Your task to perform on an android device: Go to battery settings Image 0: 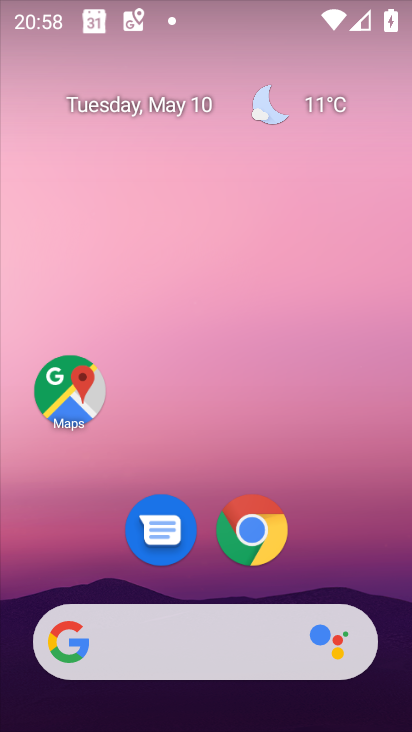
Step 0: drag from (311, 547) to (334, 141)
Your task to perform on an android device: Go to battery settings Image 1: 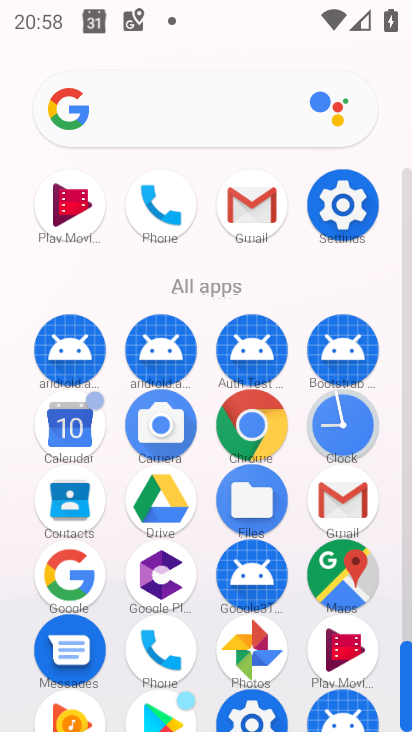
Step 1: click (340, 225)
Your task to perform on an android device: Go to battery settings Image 2: 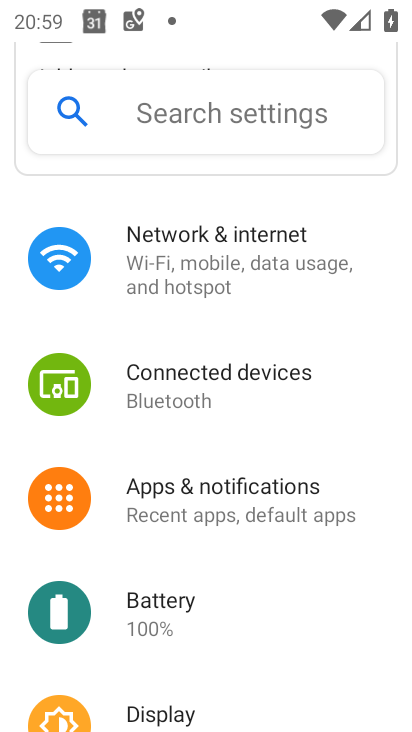
Step 2: click (201, 595)
Your task to perform on an android device: Go to battery settings Image 3: 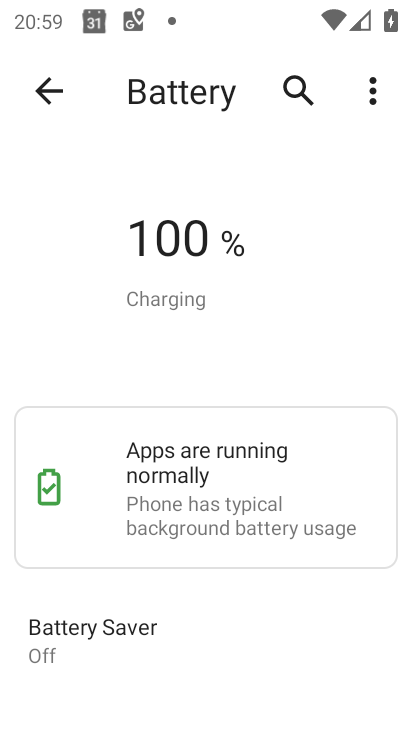
Step 3: task complete